Your task to perform on an android device: change notifications settings Image 0: 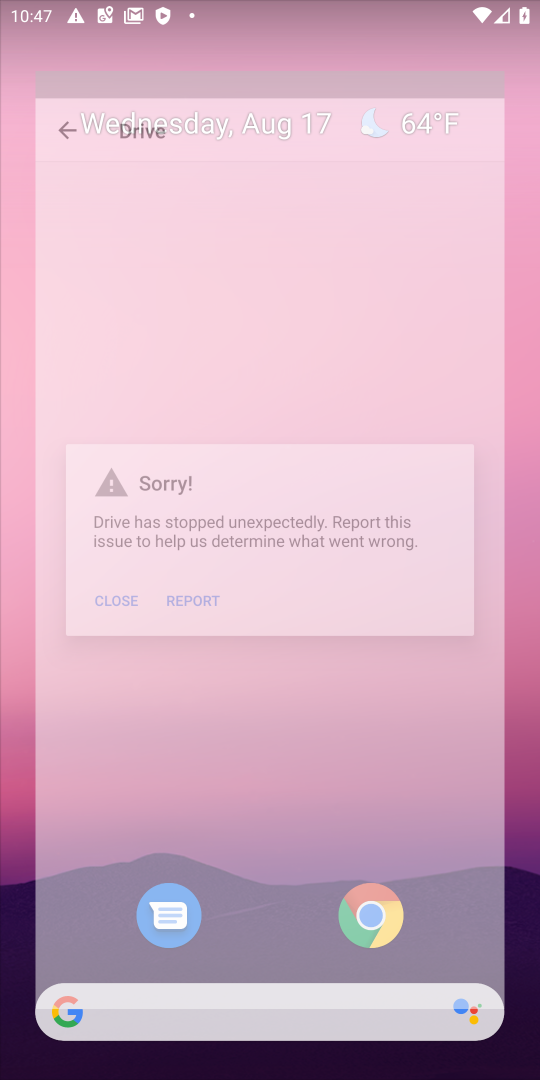
Step 0: press home button
Your task to perform on an android device: change notifications settings Image 1: 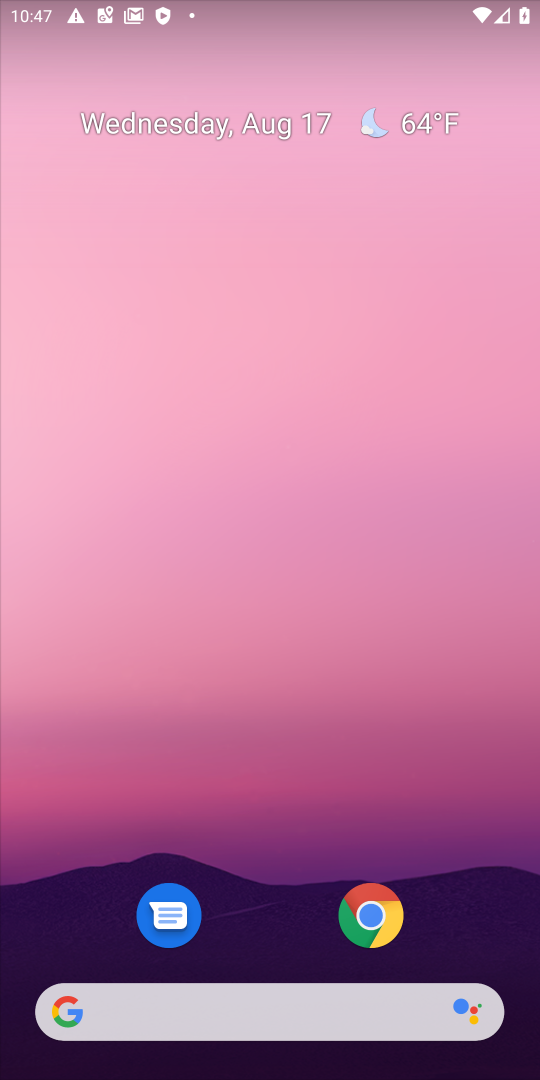
Step 1: drag from (277, 875) to (266, 13)
Your task to perform on an android device: change notifications settings Image 2: 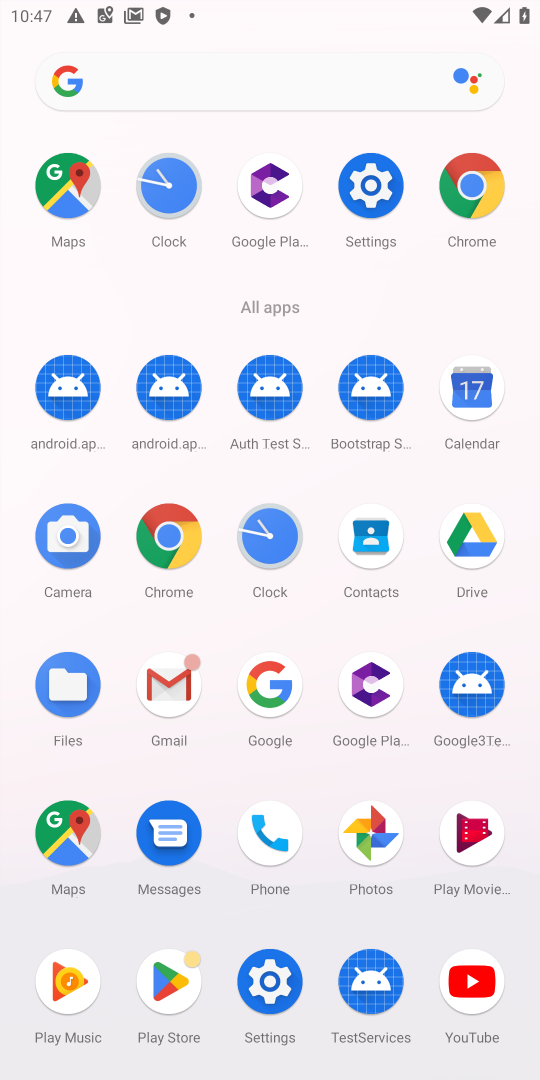
Step 2: click (364, 178)
Your task to perform on an android device: change notifications settings Image 3: 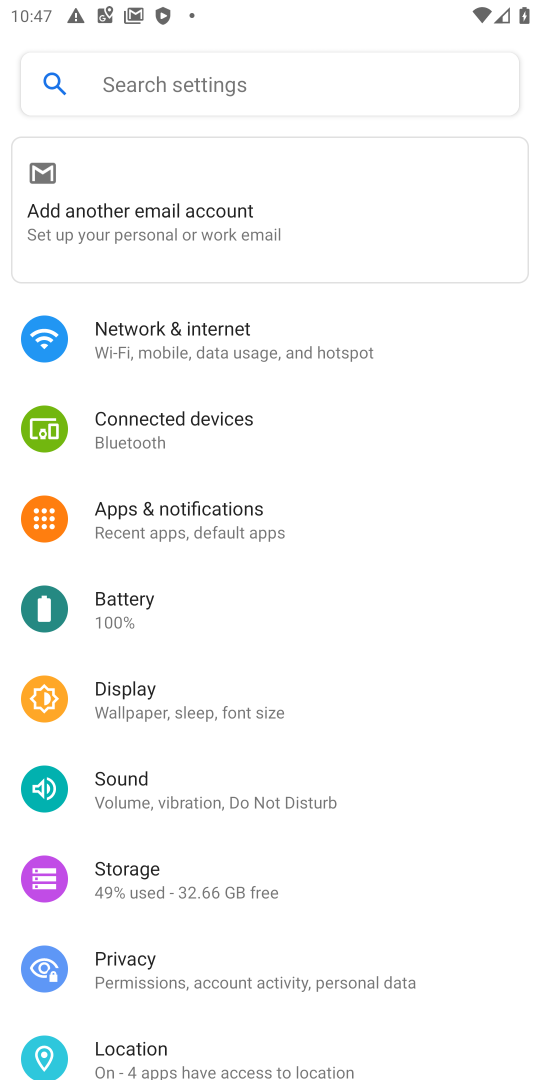
Step 3: click (153, 499)
Your task to perform on an android device: change notifications settings Image 4: 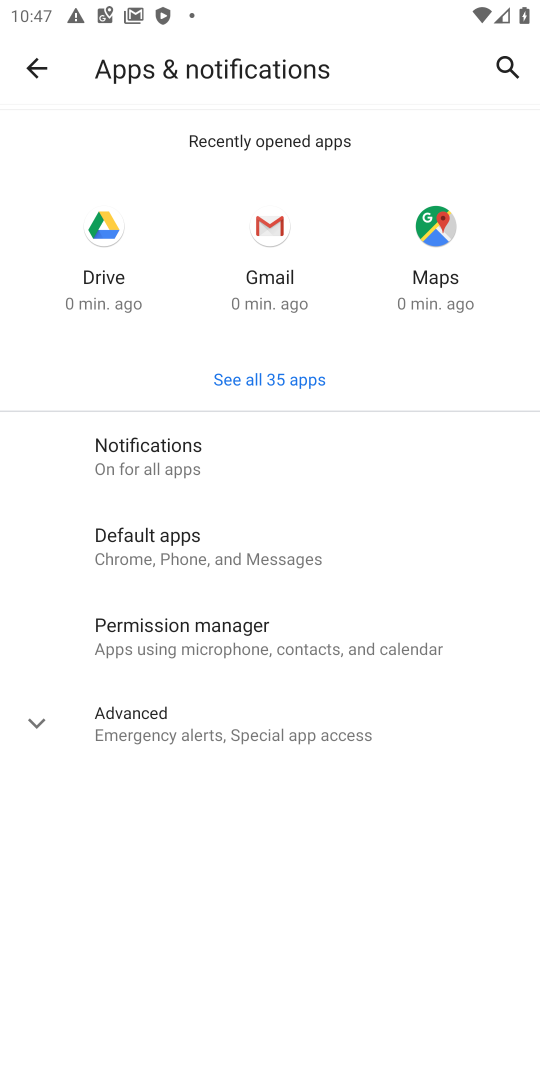
Step 4: click (140, 433)
Your task to perform on an android device: change notifications settings Image 5: 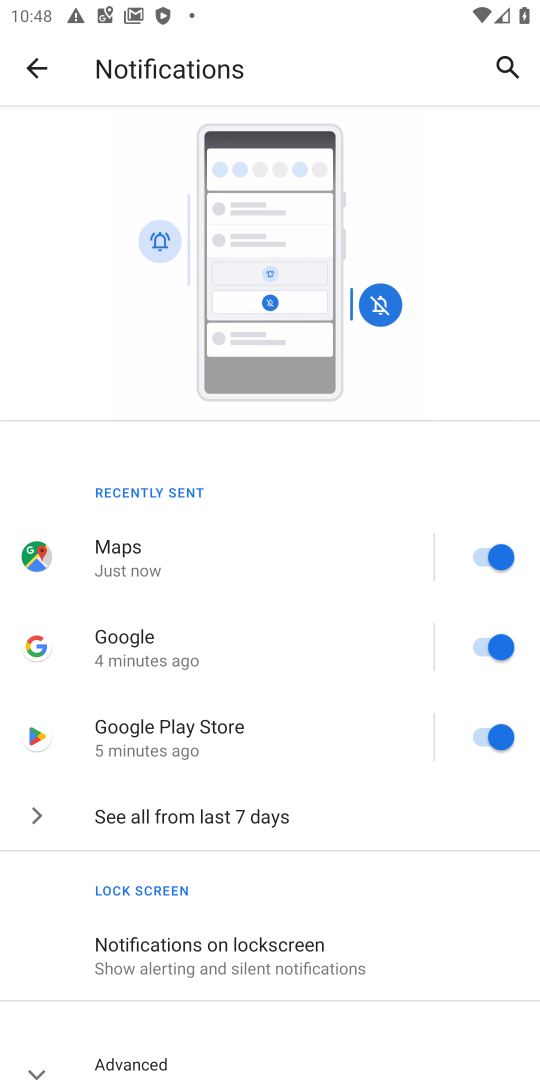
Step 5: click (179, 818)
Your task to perform on an android device: change notifications settings Image 6: 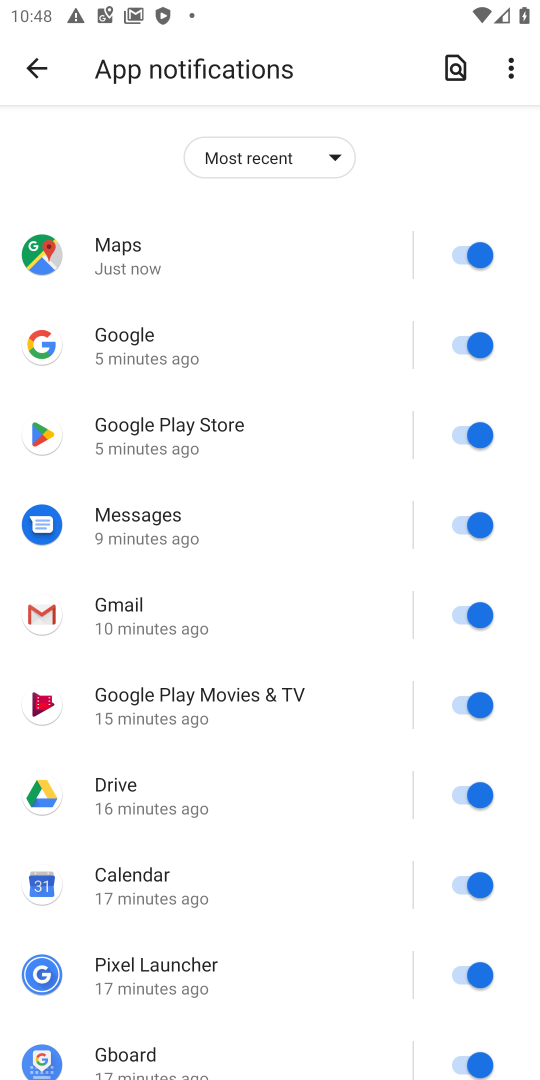
Step 6: click (336, 153)
Your task to perform on an android device: change notifications settings Image 7: 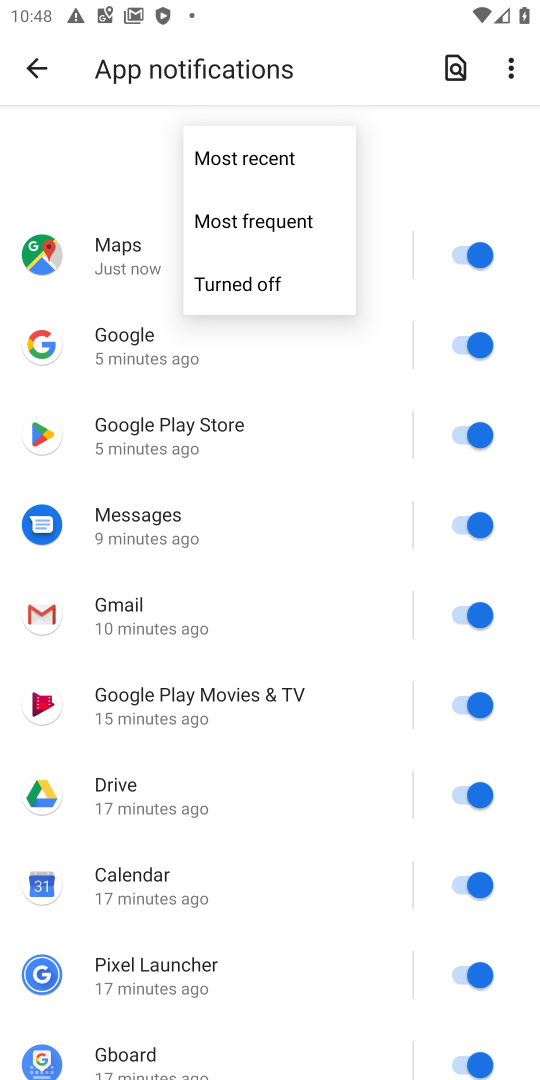
Step 7: click (232, 277)
Your task to perform on an android device: change notifications settings Image 8: 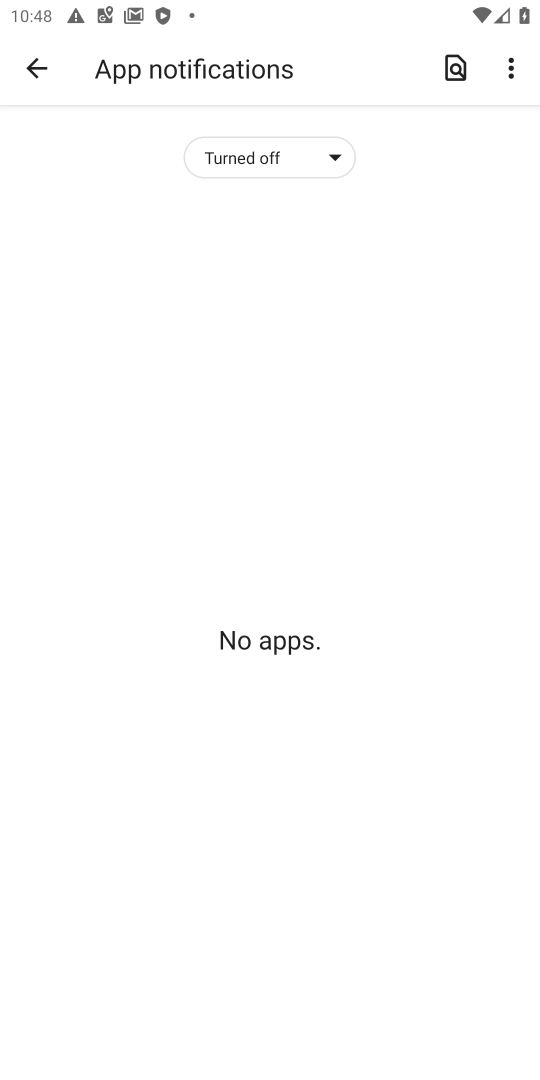
Step 8: task complete